Your task to perform on an android device: Open Chrome and go to the settings page Image 0: 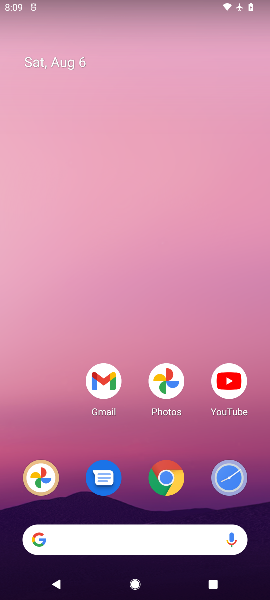
Step 0: press home button
Your task to perform on an android device: Open Chrome and go to the settings page Image 1: 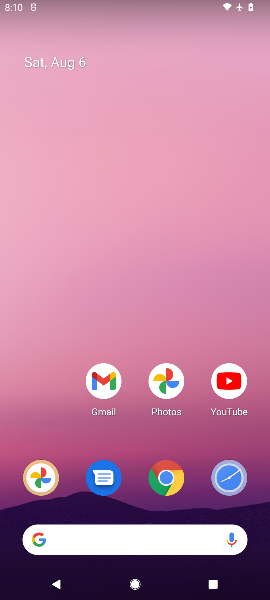
Step 1: click (165, 470)
Your task to perform on an android device: Open Chrome and go to the settings page Image 2: 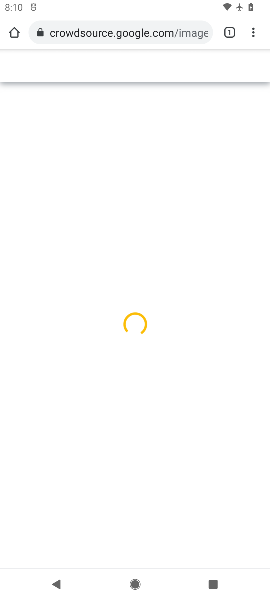
Step 2: task complete